Your task to perform on an android device: Go to accessibility settings Image 0: 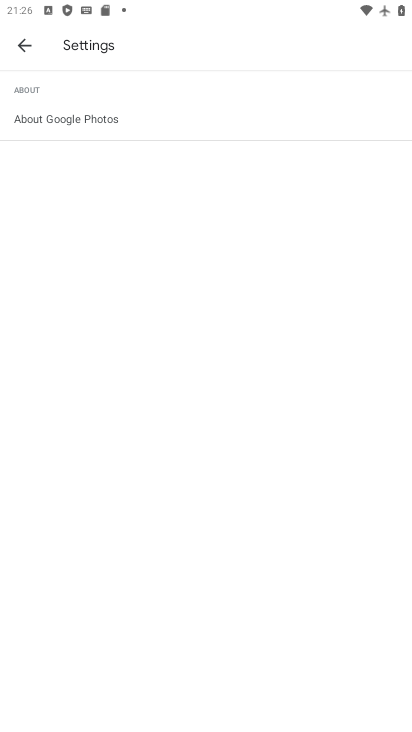
Step 0: press home button
Your task to perform on an android device: Go to accessibility settings Image 1: 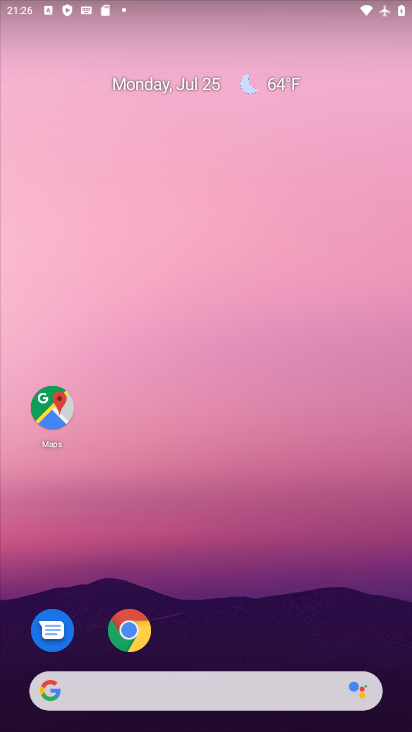
Step 1: drag from (387, 642) to (300, 90)
Your task to perform on an android device: Go to accessibility settings Image 2: 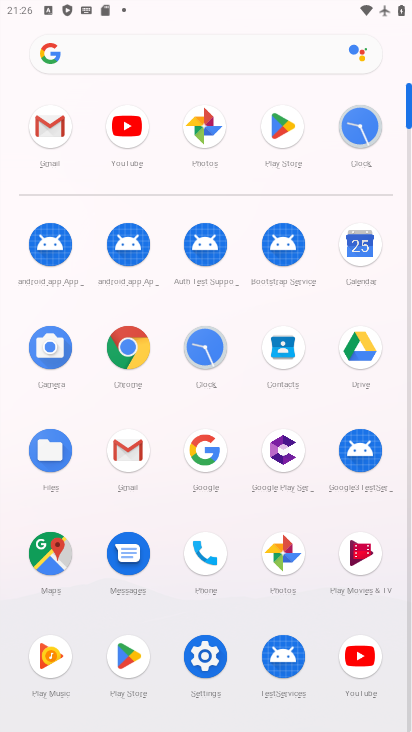
Step 2: click (206, 658)
Your task to perform on an android device: Go to accessibility settings Image 3: 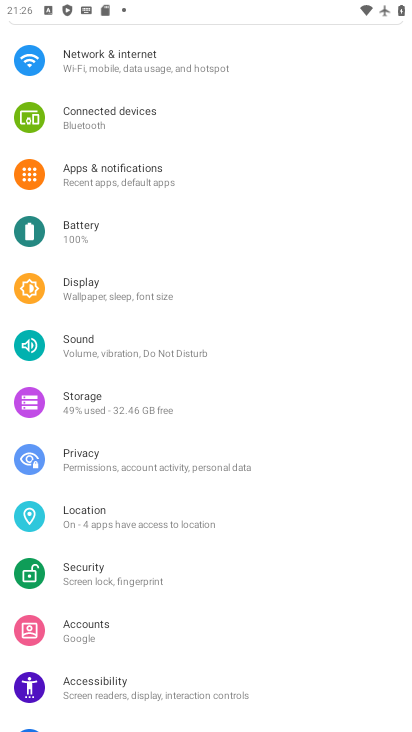
Step 3: drag from (311, 668) to (291, 314)
Your task to perform on an android device: Go to accessibility settings Image 4: 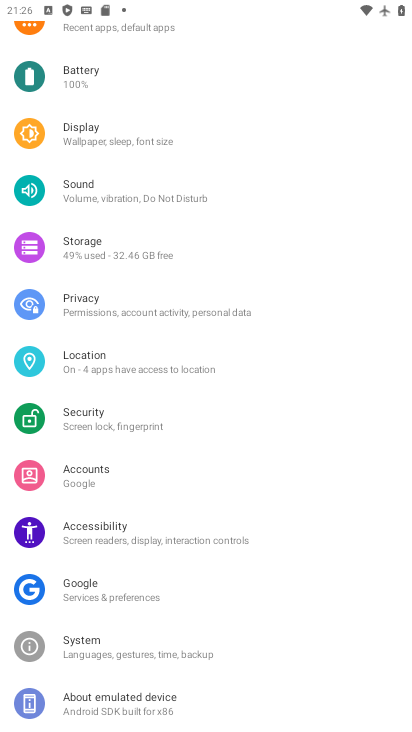
Step 4: click (104, 531)
Your task to perform on an android device: Go to accessibility settings Image 5: 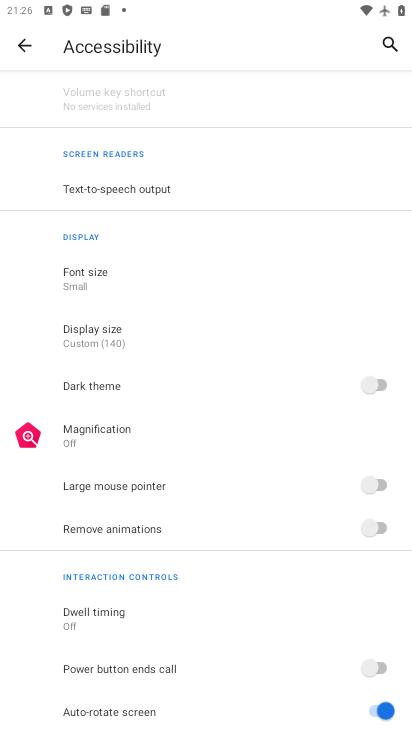
Step 5: task complete